Your task to perform on an android device: Clear all items from cart on newegg. Add asus zenbook to the cart on newegg Image 0: 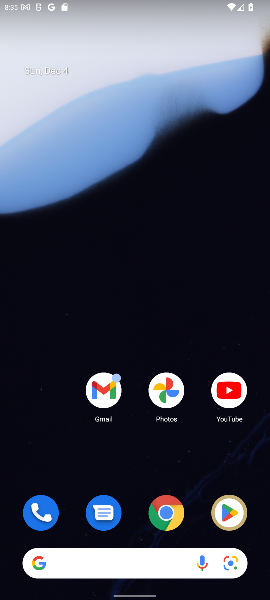
Step 0: click (171, 518)
Your task to perform on an android device: Clear all items from cart on newegg. Add asus zenbook to the cart on newegg Image 1: 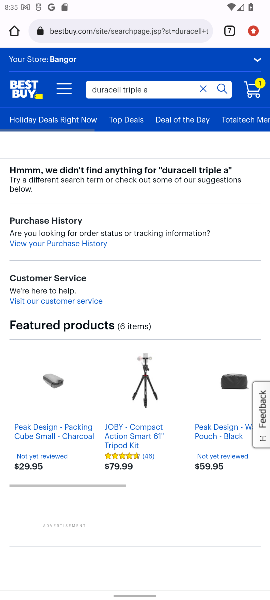
Step 1: click (229, 30)
Your task to perform on an android device: Clear all items from cart on newegg. Add asus zenbook to the cart on newegg Image 2: 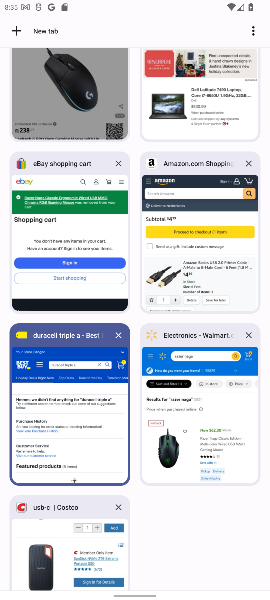
Step 2: click (62, 99)
Your task to perform on an android device: Clear all items from cart on newegg. Add asus zenbook to the cart on newegg Image 3: 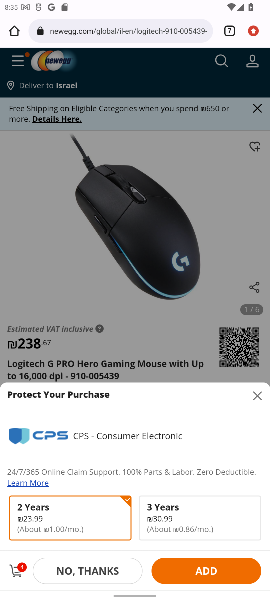
Step 3: click (81, 562)
Your task to perform on an android device: Clear all items from cart on newegg. Add asus zenbook to the cart on newegg Image 4: 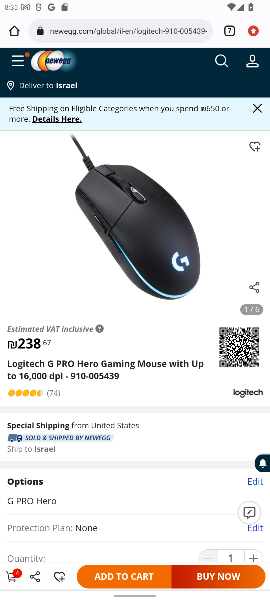
Step 4: click (225, 63)
Your task to perform on an android device: Clear all items from cart on newegg. Add asus zenbook to the cart on newegg Image 5: 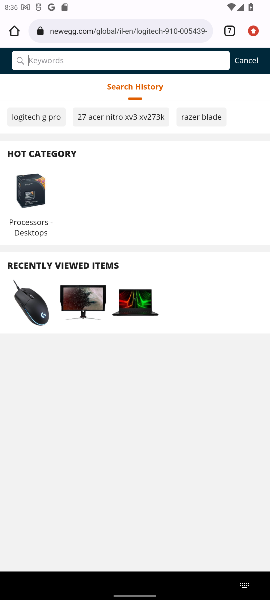
Step 5: type "asus zenbook"
Your task to perform on an android device: Clear all items from cart on newegg. Add asus zenbook to the cart on newegg Image 6: 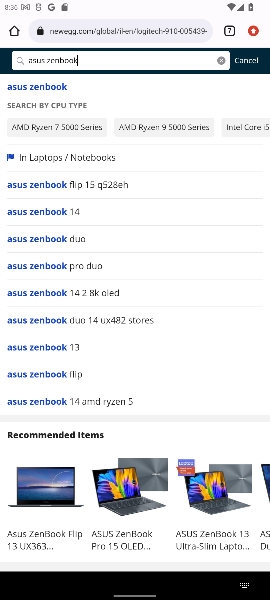
Step 6: click (55, 85)
Your task to perform on an android device: Clear all items from cart on newegg. Add asus zenbook to the cart on newegg Image 7: 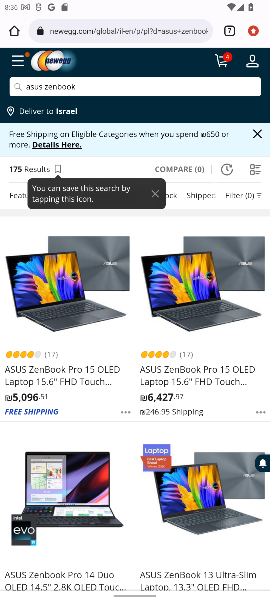
Step 7: click (72, 381)
Your task to perform on an android device: Clear all items from cart on newegg. Add asus zenbook to the cart on newegg Image 8: 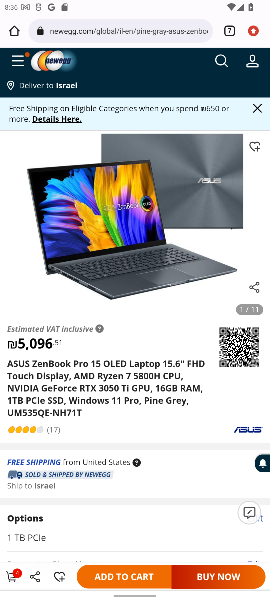
Step 8: click (138, 576)
Your task to perform on an android device: Clear all items from cart on newegg. Add asus zenbook to the cart on newegg Image 9: 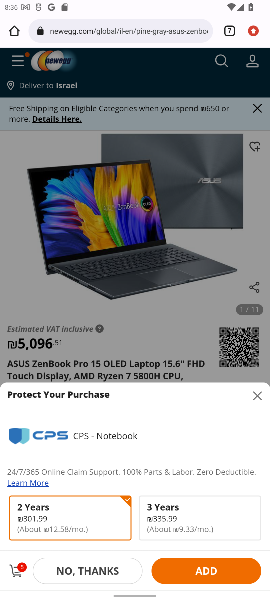
Step 9: click (19, 568)
Your task to perform on an android device: Clear all items from cart on newegg. Add asus zenbook to the cart on newegg Image 10: 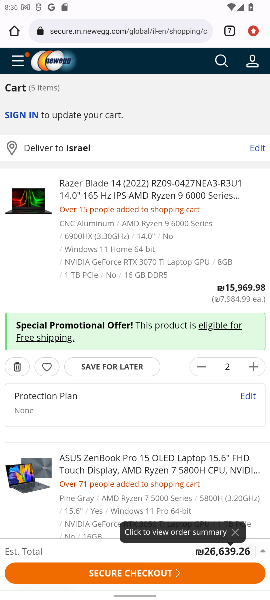
Step 10: click (18, 369)
Your task to perform on an android device: Clear all items from cart on newegg. Add asus zenbook to the cart on newegg Image 11: 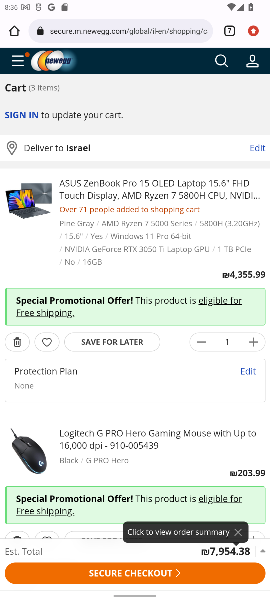
Step 11: click (240, 536)
Your task to perform on an android device: Clear all items from cart on newegg. Add asus zenbook to the cart on newegg Image 12: 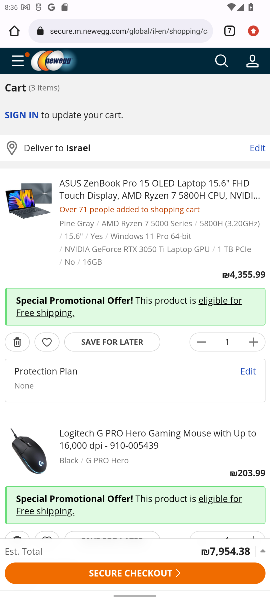
Step 12: drag from (63, 499) to (164, 101)
Your task to perform on an android device: Clear all items from cart on newegg. Add asus zenbook to the cart on newegg Image 13: 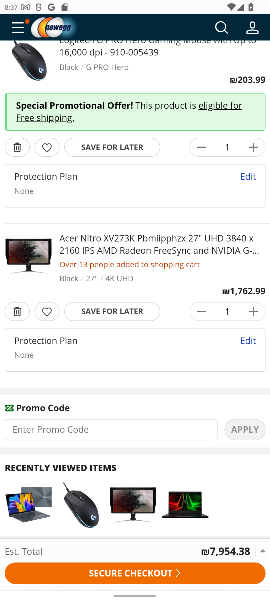
Step 13: click (15, 315)
Your task to perform on an android device: Clear all items from cart on newegg. Add asus zenbook to the cart on newegg Image 14: 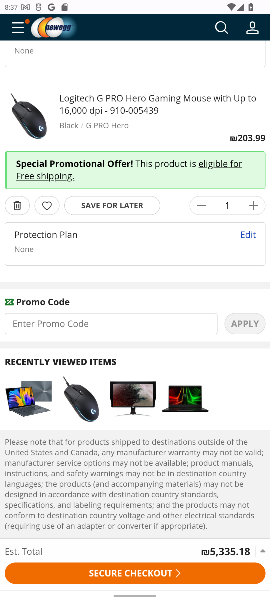
Step 14: click (165, 576)
Your task to perform on an android device: Clear all items from cart on newegg. Add asus zenbook to the cart on newegg Image 15: 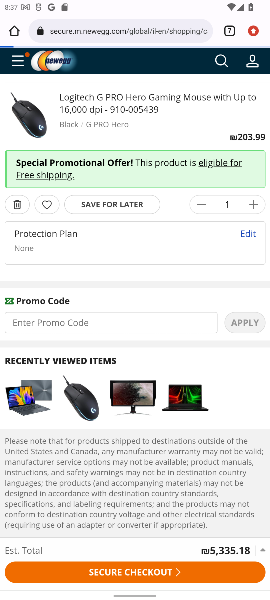
Step 15: task complete